Your task to perform on an android device: Do I have any events this weekend? Image 0: 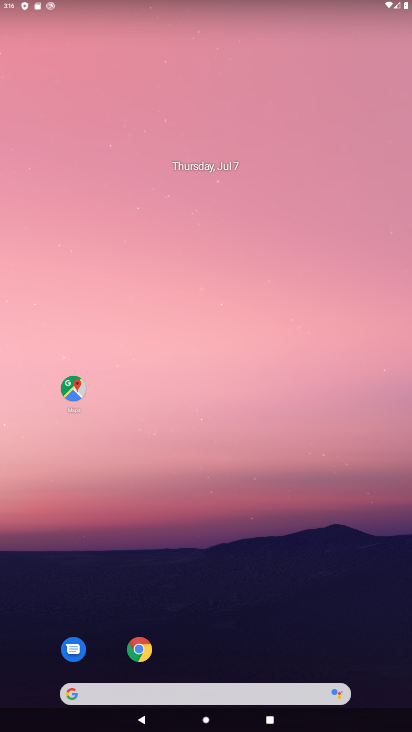
Step 0: click (29, 0)
Your task to perform on an android device: Do I have any events this weekend? Image 1: 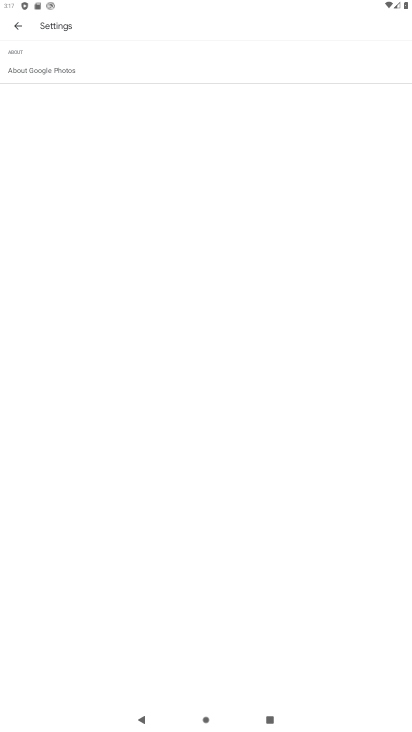
Step 1: press home button
Your task to perform on an android device: Do I have any events this weekend? Image 2: 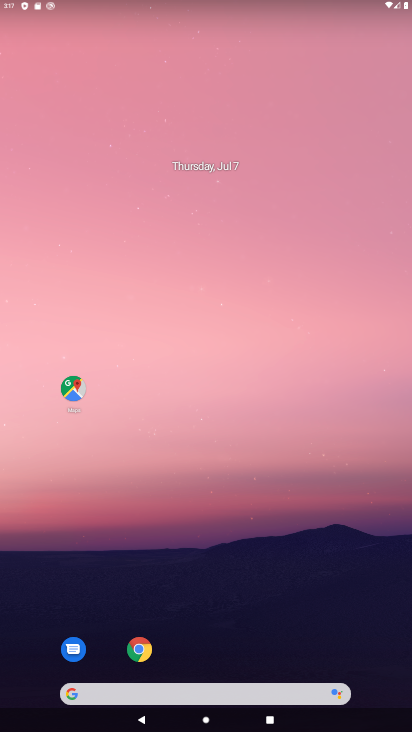
Step 2: drag from (385, 702) to (183, 70)
Your task to perform on an android device: Do I have any events this weekend? Image 3: 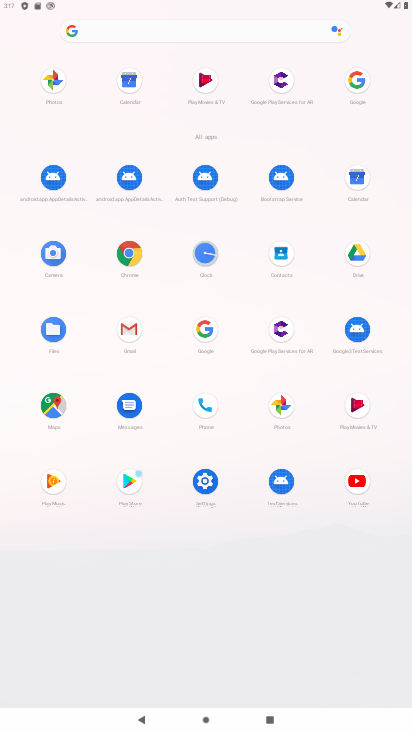
Step 3: press back button
Your task to perform on an android device: Do I have any events this weekend? Image 4: 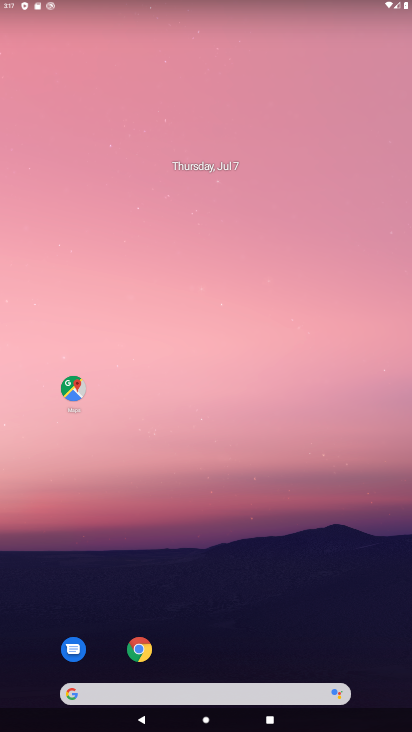
Step 4: drag from (390, 666) to (87, 62)
Your task to perform on an android device: Do I have any events this weekend? Image 5: 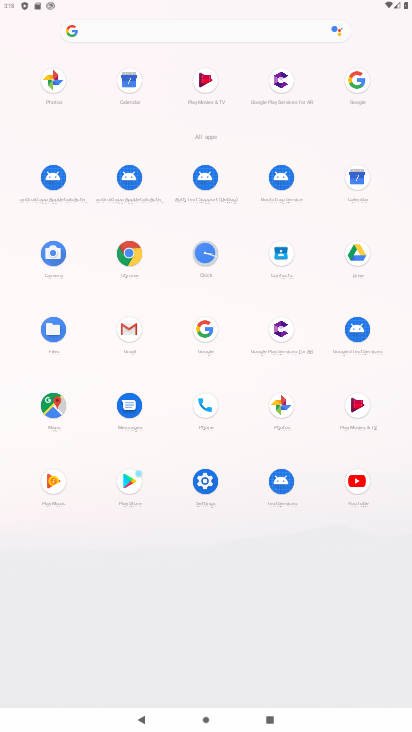
Step 5: click (363, 175)
Your task to perform on an android device: Do I have any events this weekend? Image 6: 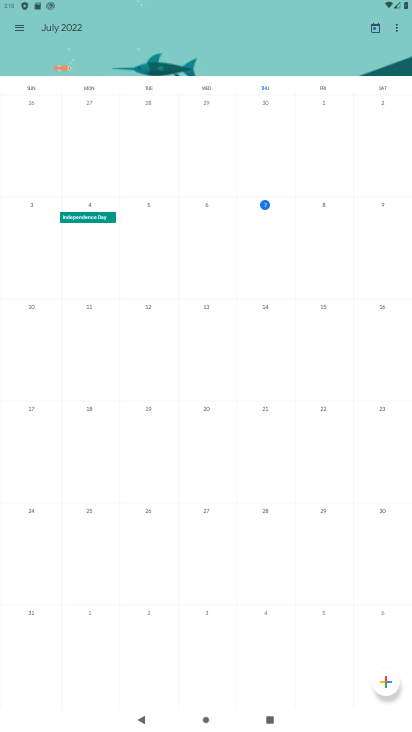
Step 6: task complete